Your task to perform on an android device: Go to eBay Image 0: 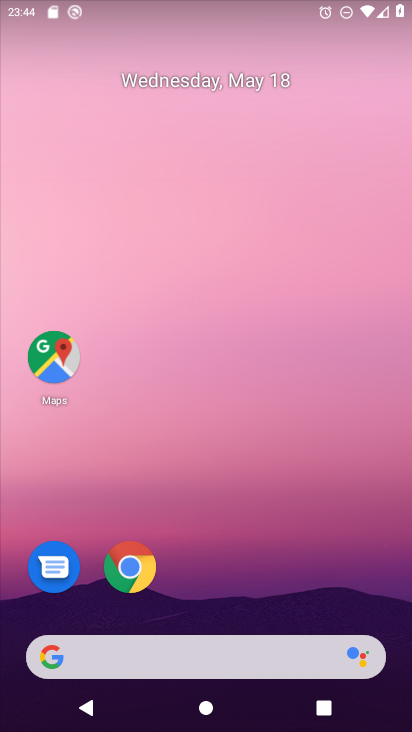
Step 0: drag from (270, 680) to (404, 199)
Your task to perform on an android device: Go to eBay Image 1: 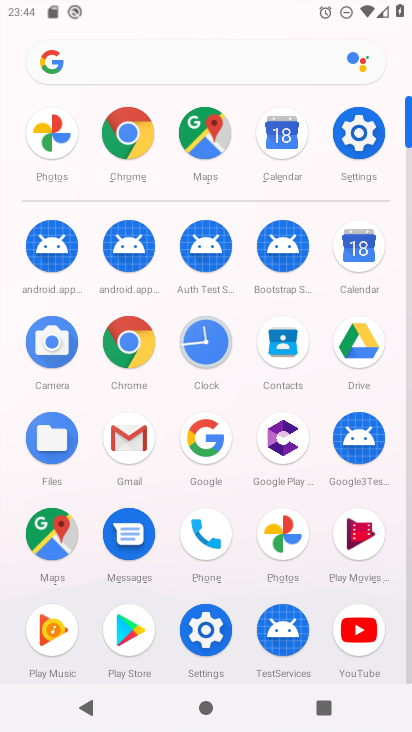
Step 1: click (141, 134)
Your task to perform on an android device: Go to eBay Image 2: 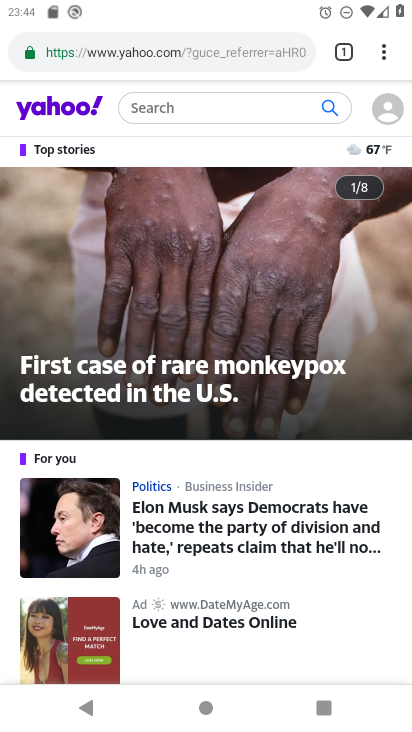
Step 2: click (169, 46)
Your task to perform on an android device: Go to eBay Image 3: 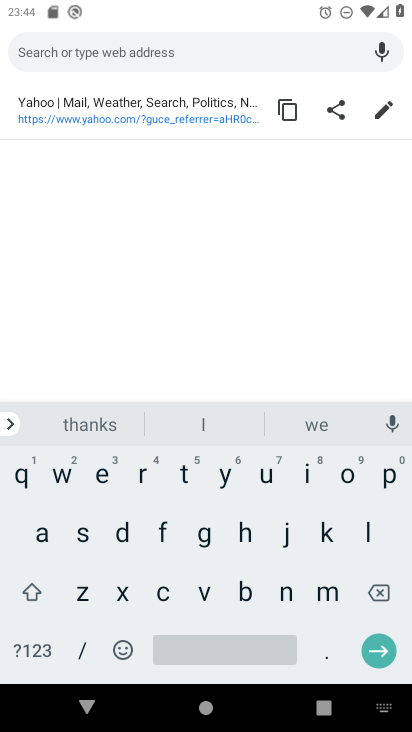
Step 3: click (94, 472)
Your task to perform on an android device: Go to eBay Image 4: 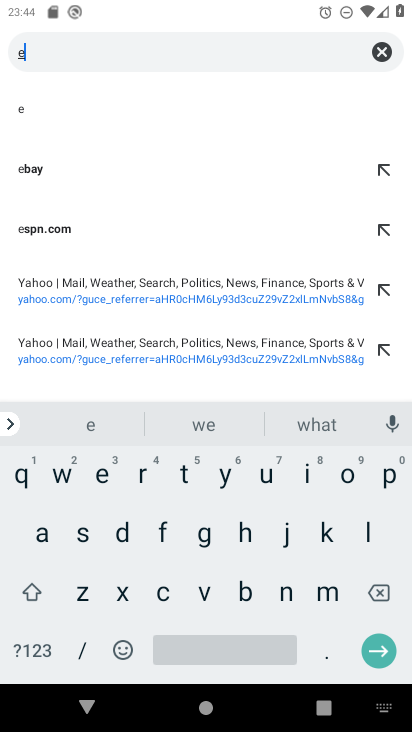
Step 4: click (243, 583)
Your task to perform on an android device: Go to eBay Image 5: 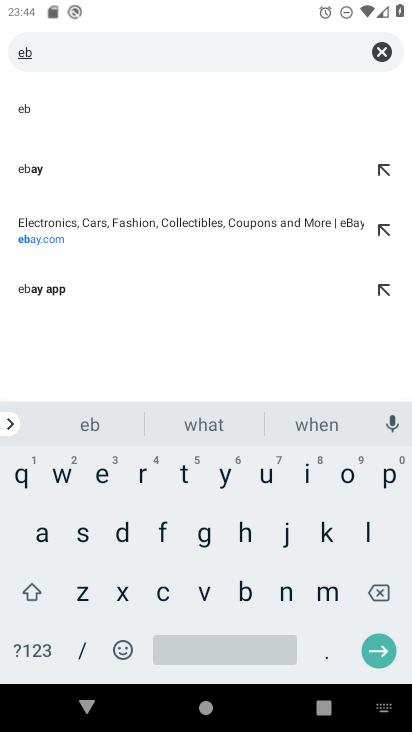
Step 5: click (59, 176)
Your task to perform on an android device: Go to eBay Image 6: 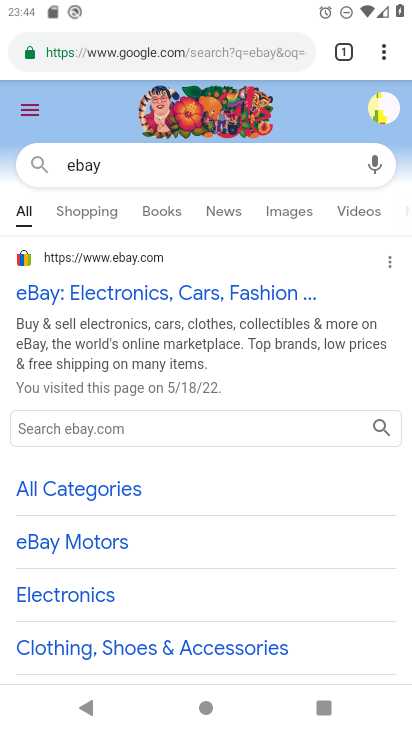
Step 6: click (105, 279)
Your task to perform on an android device: Go to eBay Image 7: 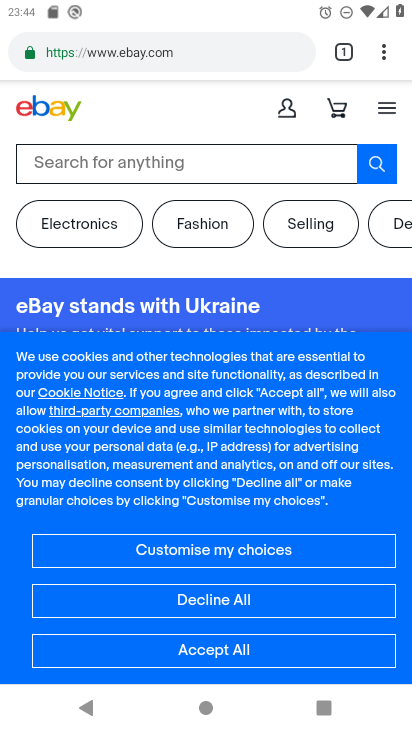
Step 7: click (208, 604)
Your task to perform on an android device: Go to eBay Image 8: 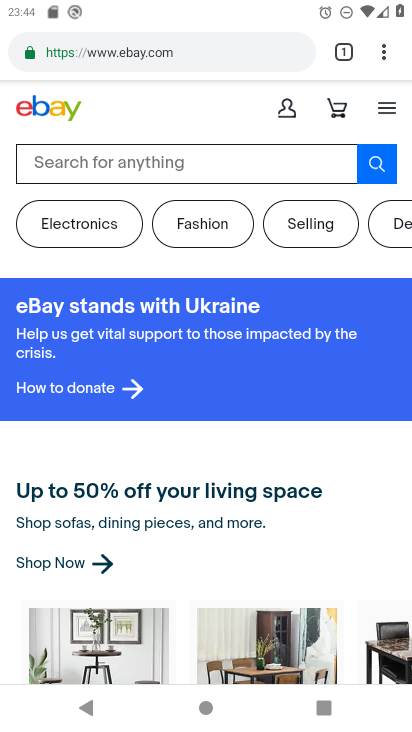
Step 8: task complete